Your task to perform on an android device: See recent photos Image 0: 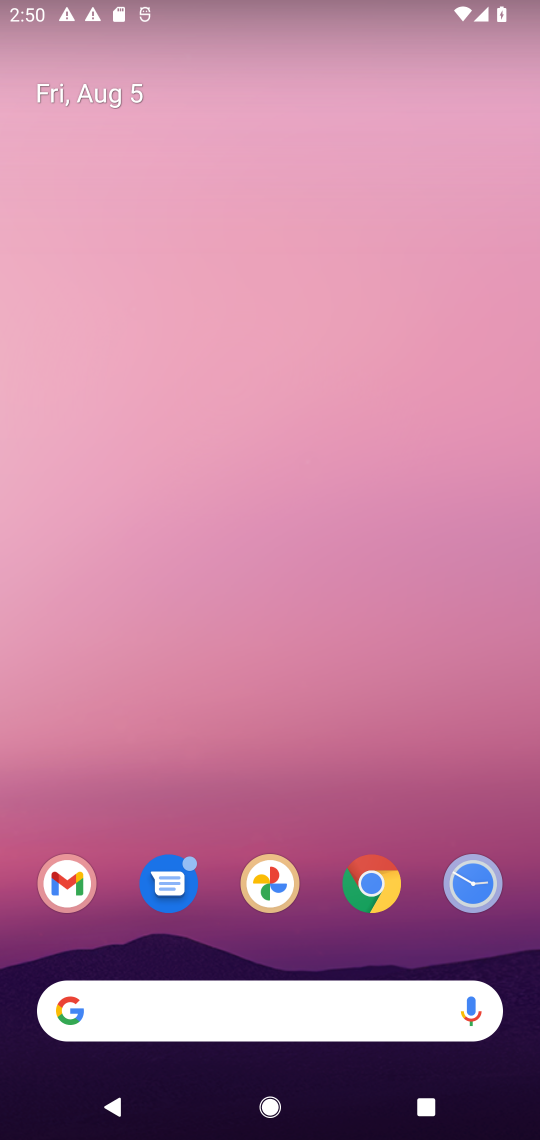
Step 0: press home button
Your task to perform on an android device: See recent photos Image 1: 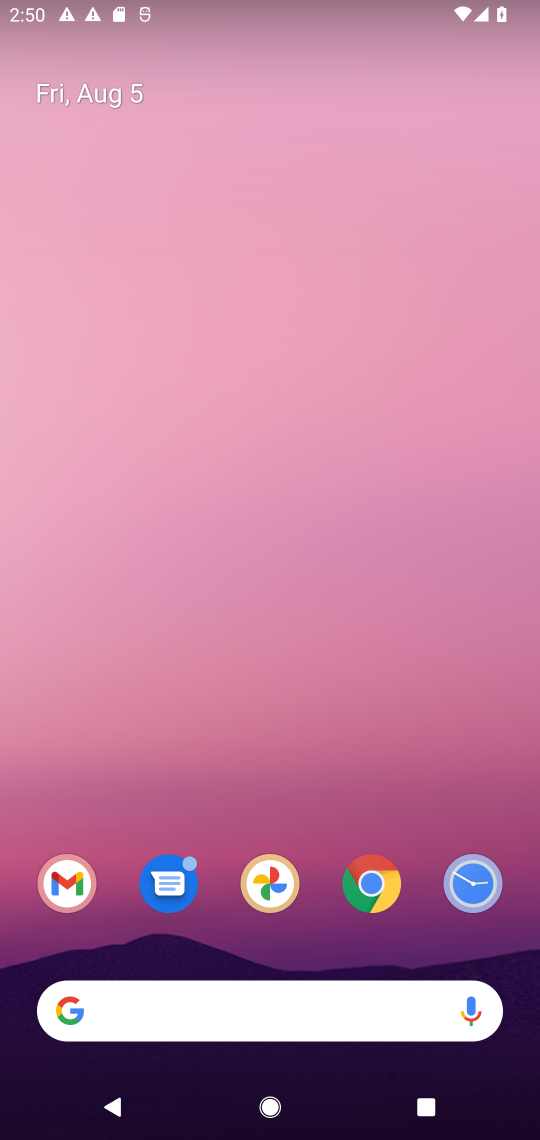
Step 1: click (263, 870)
Your task to perform on an android device: See recent photos Image 2: 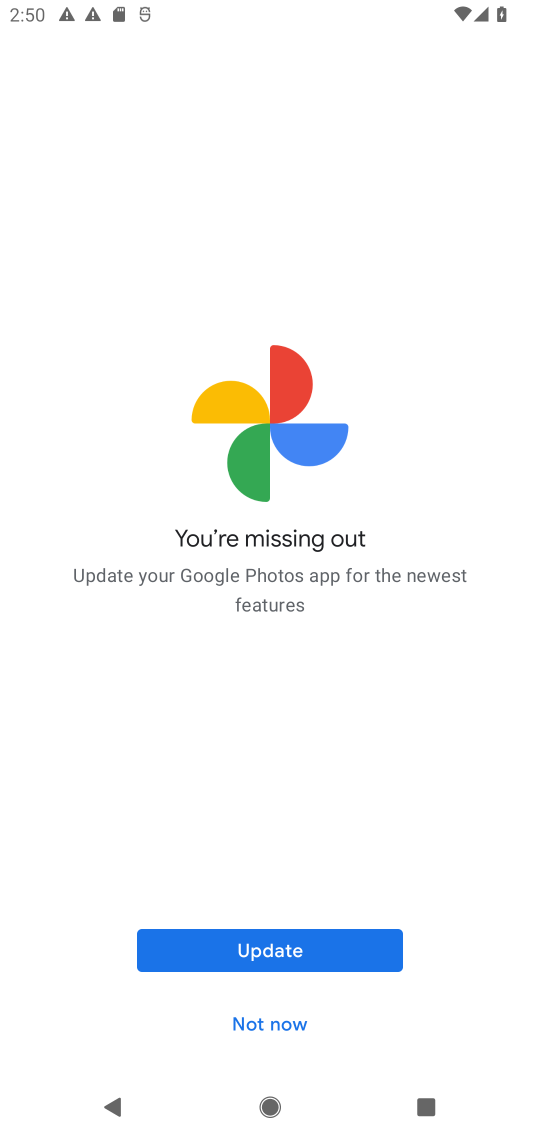
Step 2: click (270, 1018)
Your task to perform on an android device: See recent photos Image 3: 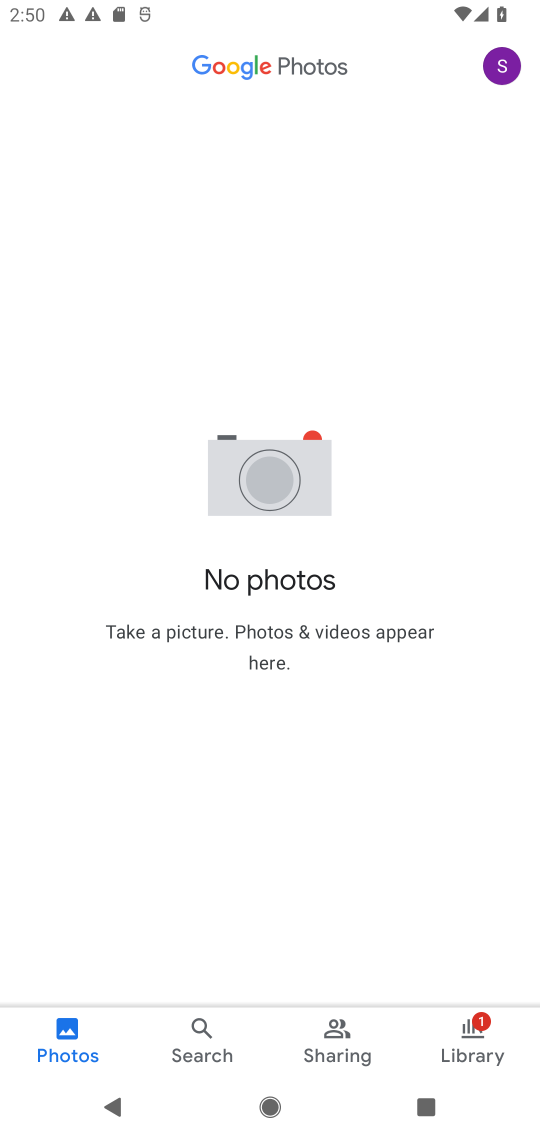
Step 3: task complete